Your task to perform on an android device: What is the news today? Image 0: 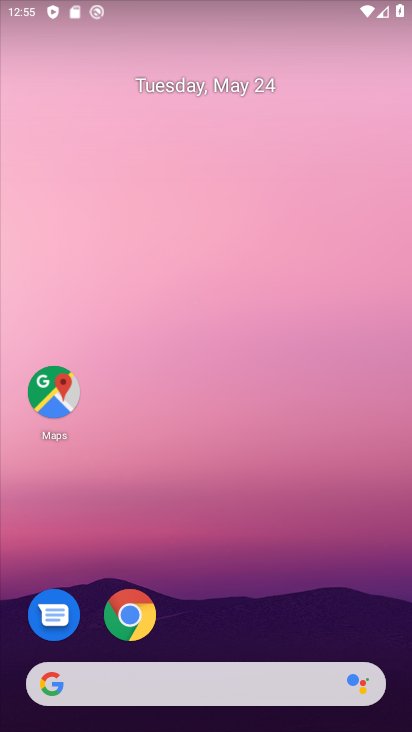
Step 0: drag from (8, 295) to (400, 417)
Your task to perform on an android device: What is the news today? Image 1: 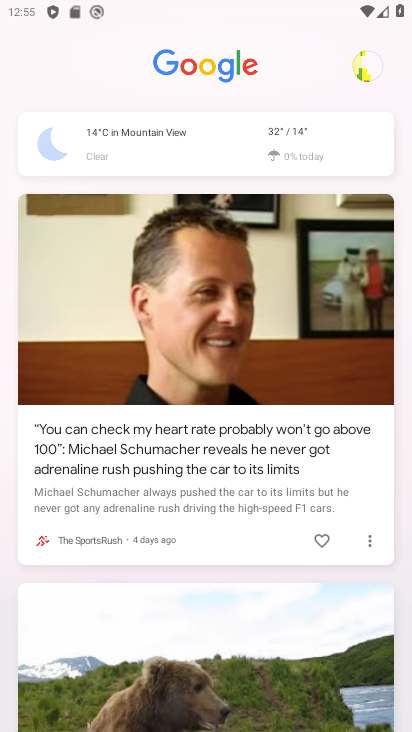
Step 1: task complete